Your task to perform on an android device: turn off data saver in the chrome app Image 0: 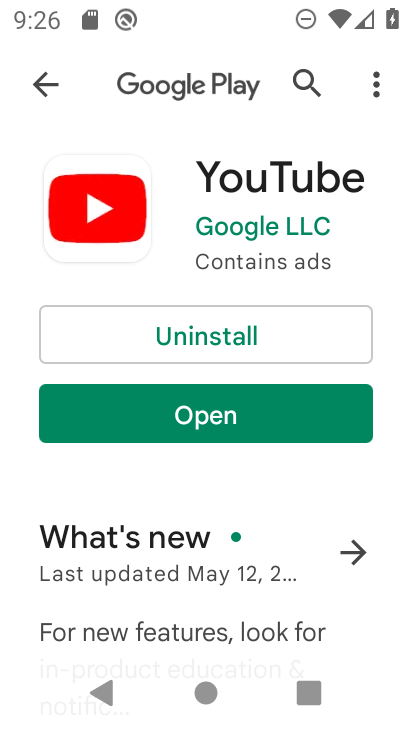
Step 0: press home button
Your task to perform on an android device: turn off data saver in the chrome app Image 1: 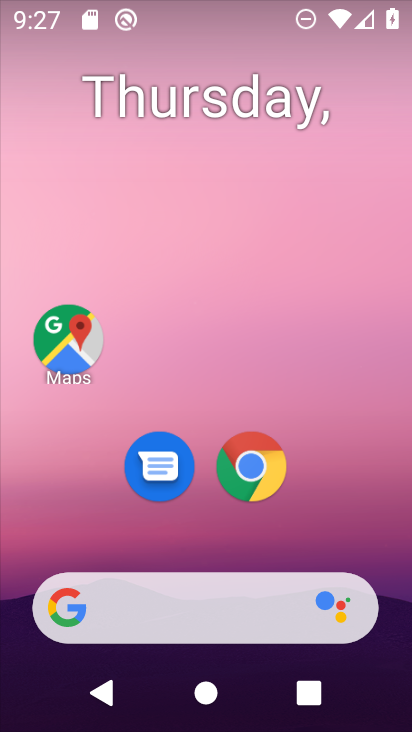
Step 1: drag from (212, 616) to (168, 16)
Your task to perform on an android device: turn off data saver in the chrome app Image 2: 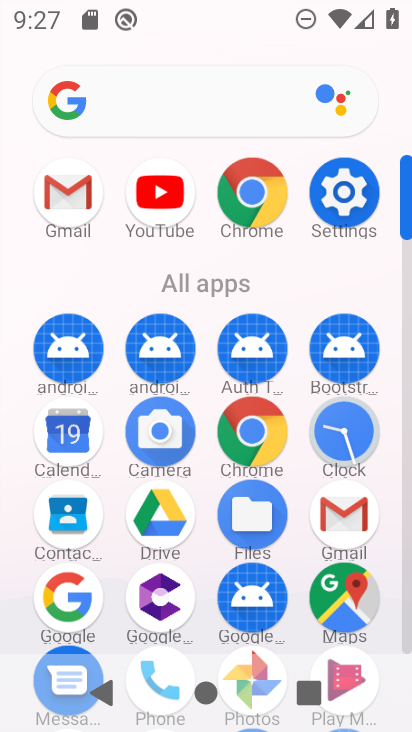
Step 2: click (254, 438)
Your task to perform on an android device: turn off data saver in the chrome app Image 3: 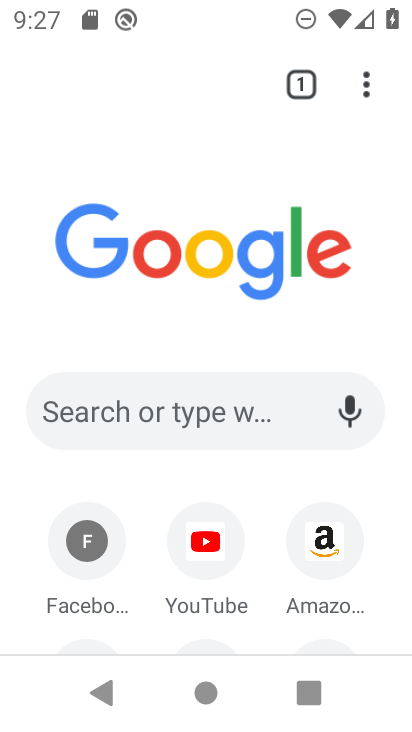
Step 3: drag from (358, 91) to (195, 616)
Your task to perform on an android device: turn off data saver in the chrome app Image 4: 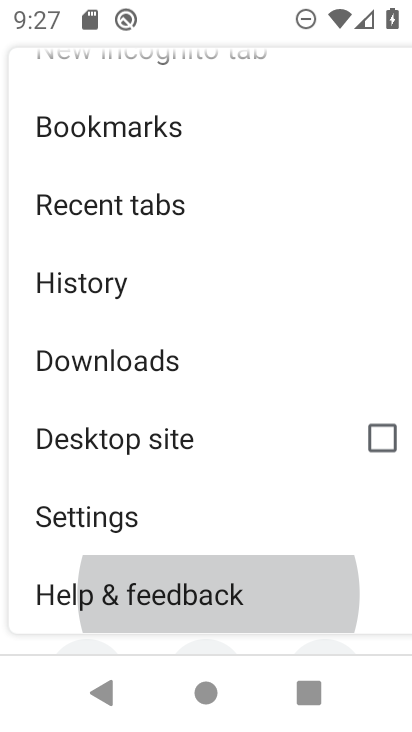
Step 4: click (188, 524)
Your task to perform on an android device: turn off data saver in the chrome app Image 5: 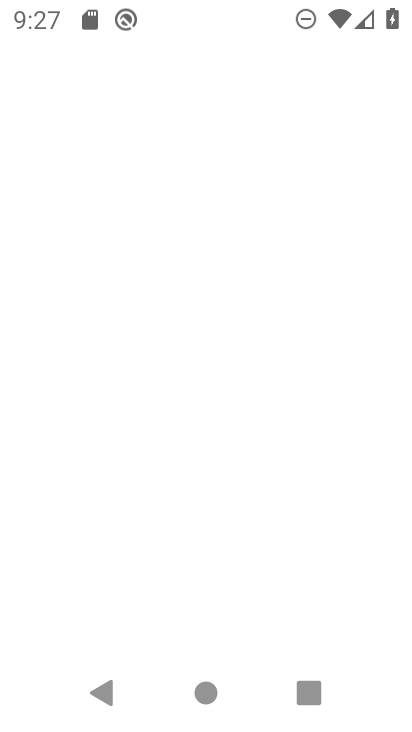
Step 5: click (147, 90)
Your task to perform on an android device: turn off data saver in the chrome app Image 6: 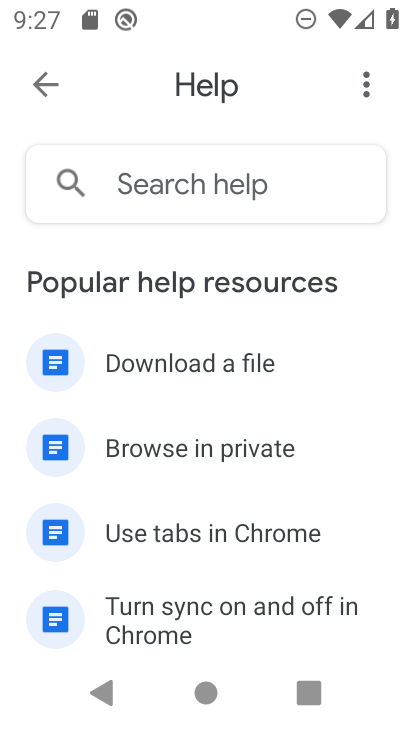
Step 6: press back button
Your task to perform on an android device: turn off data saver in the chrome app Image 7: 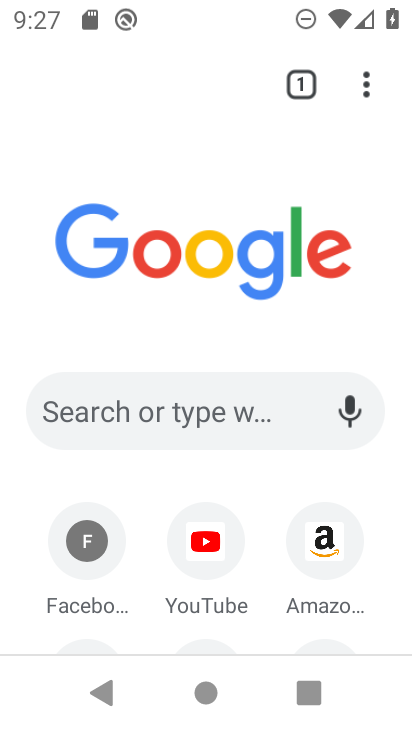
Step 7: drag from (372, 80) to (148, 520)
Your task to perform on an android device: turn off data saver in the chrome app Image 8: 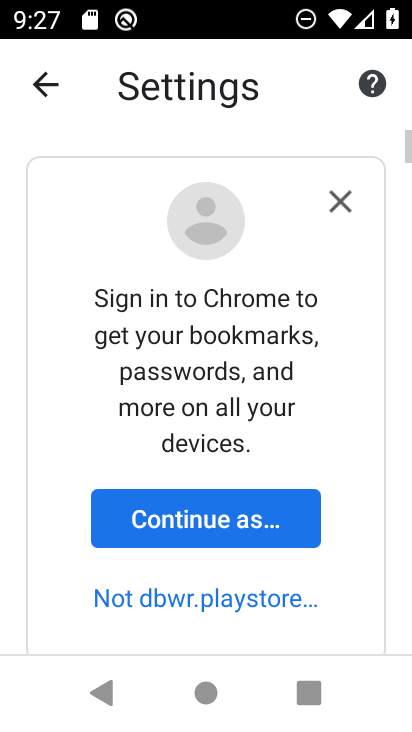
Step 8: drag from (354, 577) to (306, 28)
Your task to perform on an android device: turn off data saver in the chrome app Image 9: 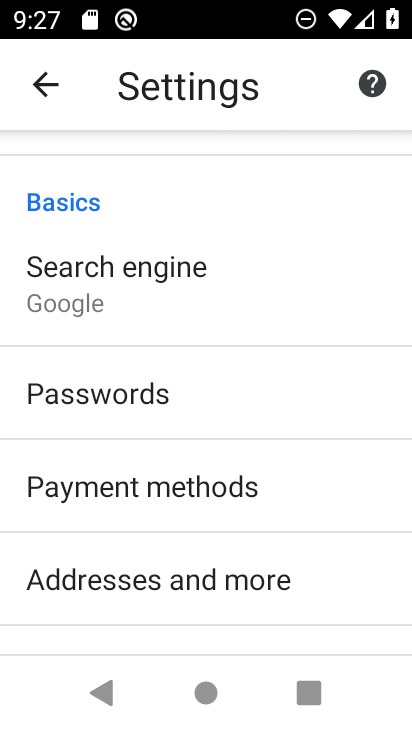
Step 9: drag from (301, 598) to (286, 176)
Your task to perform on an android device: turn off data saver in the chrome app Image 10: 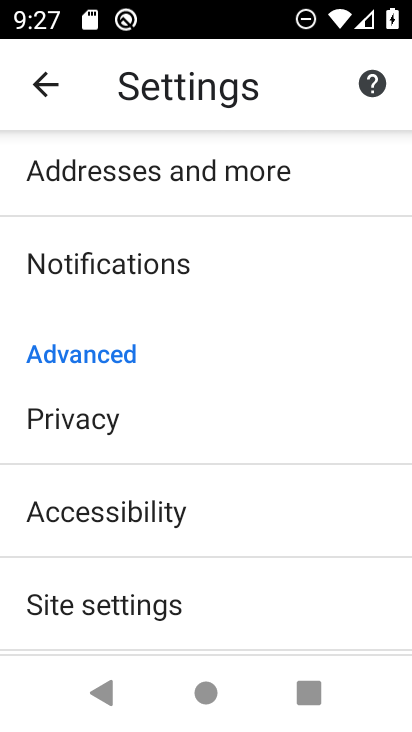
Step 10: click (157, 609)
Your task to perform on an android device: turn off data saver in the chrome app Image 11: 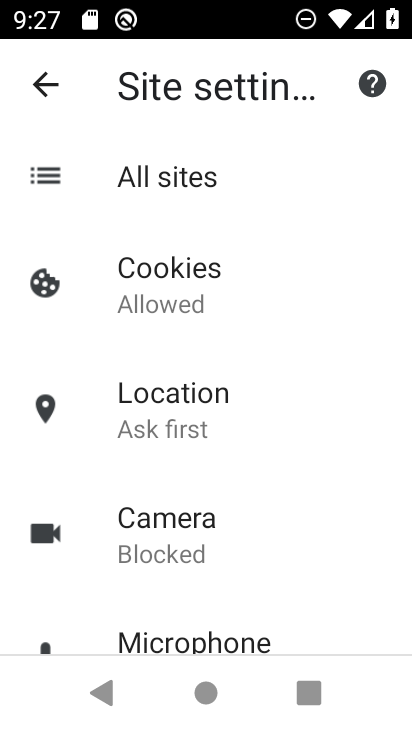
Step 11: press back button
Your task to perform on an android device: turn off data saver in the chrome app Image 12: 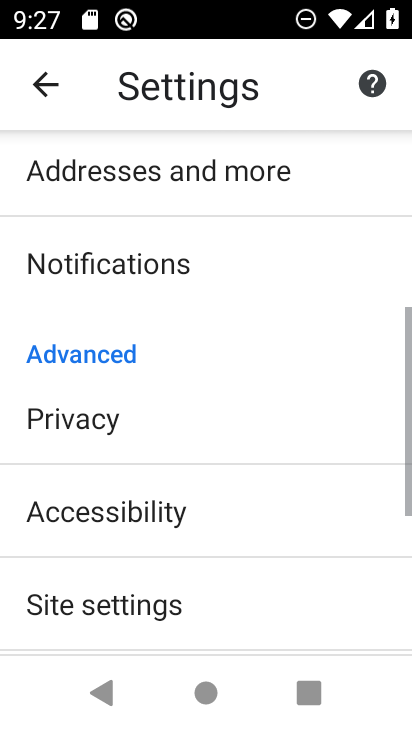
Step 12: drag from (236, 601) to (279, 197)
Your task to perform on an android device: turn off data saver in the chrome app Image 13: 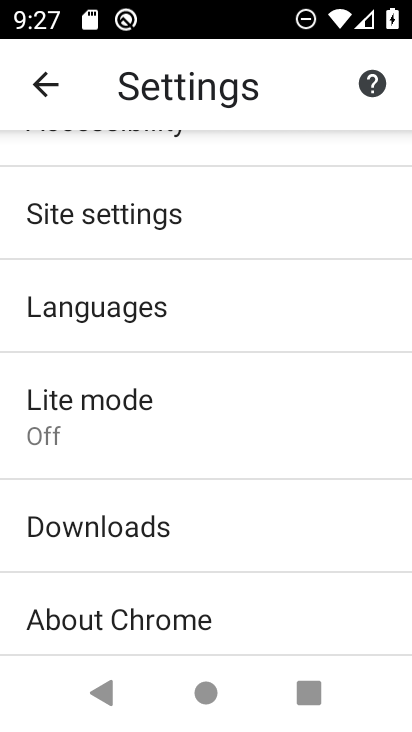
Step 13: click (183, 415)
Your task to perform on an android device: turn off data saver in the chrome app Image 14: 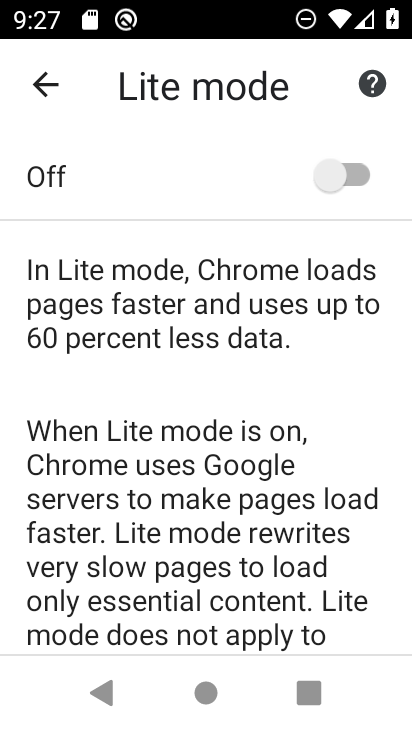
Step 14: task complete